Your task to perform on an android device: Open the Play Movies app and select the watchlist tab. Image 0: 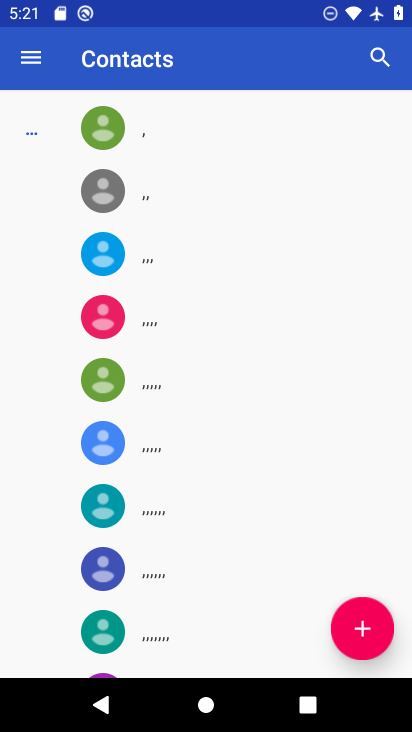
Step 0: press home button
Your task to perform on an android device: Open the Play Movies app and select the watchlist tab. Image 1: 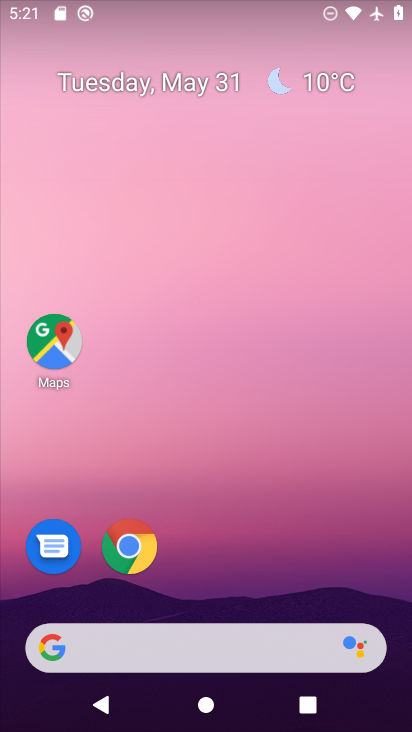
Step 1: drag from (276, 583) to (353, 43)
Your task to perform on an android device: Open the Play Movies app and select the watchlist tab. Image 2: 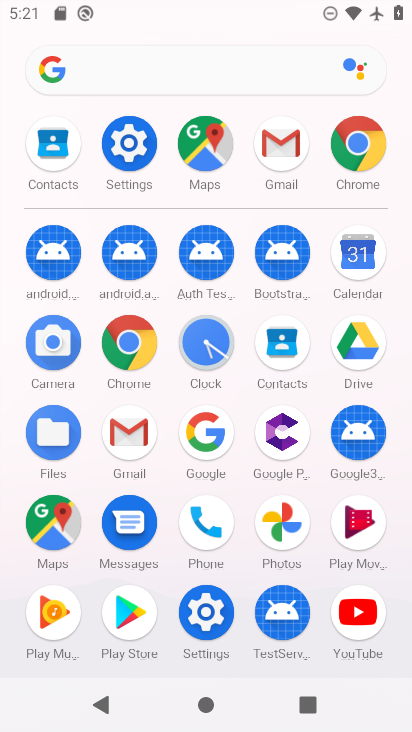
Step 2: click (359, 539)
Your task to perform on an android device: Open the Play Movies app and select the watchlist tab. Image 3: 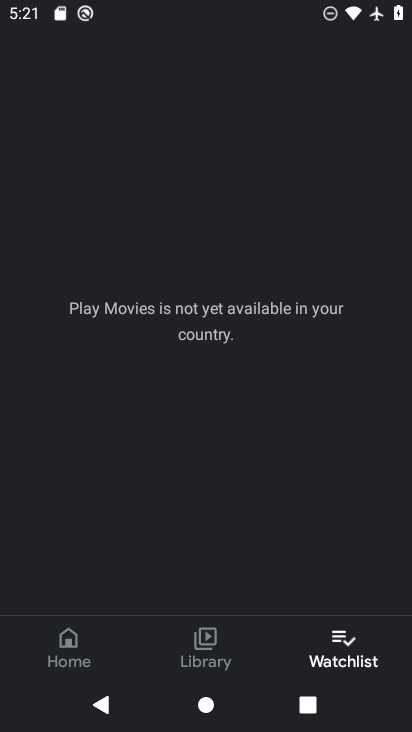
Step 3: task complete